Your task to perform on an android device: Clear the cart on walmart. Add "lenovo thinkpad" to the cart on walmart, then select checkout. Image 0: 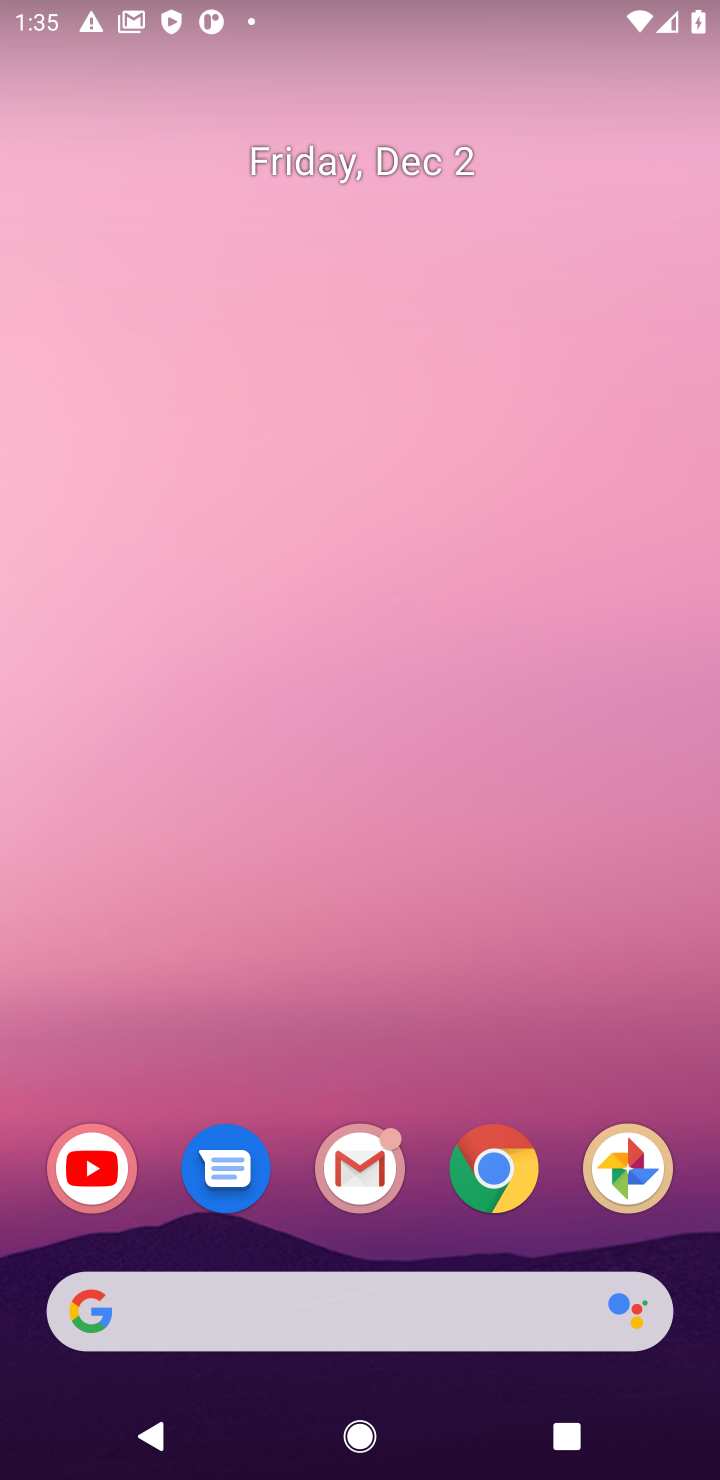
Step 0: click (500, 1163)
Your task to perform on an android device: Clear the cart on walmart. Add "lenovo thinkpad" to the cart on walmart, then select checkout. Image 1: 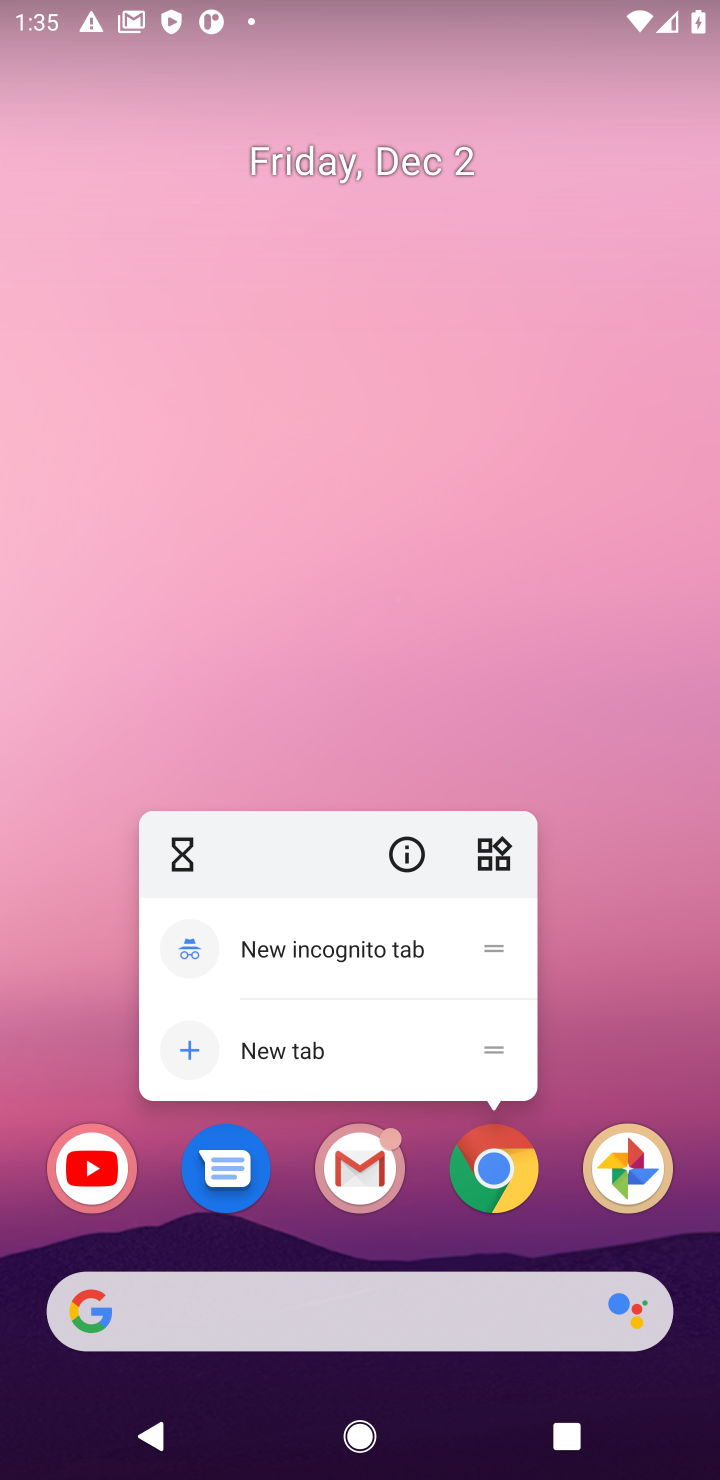
Step 1: click (500, 1163)
Your task to perform on an android device: Clear the cart on walmart. Add "lenovo thinkpad" to the cart on walmart, then select checkout. Image 2: 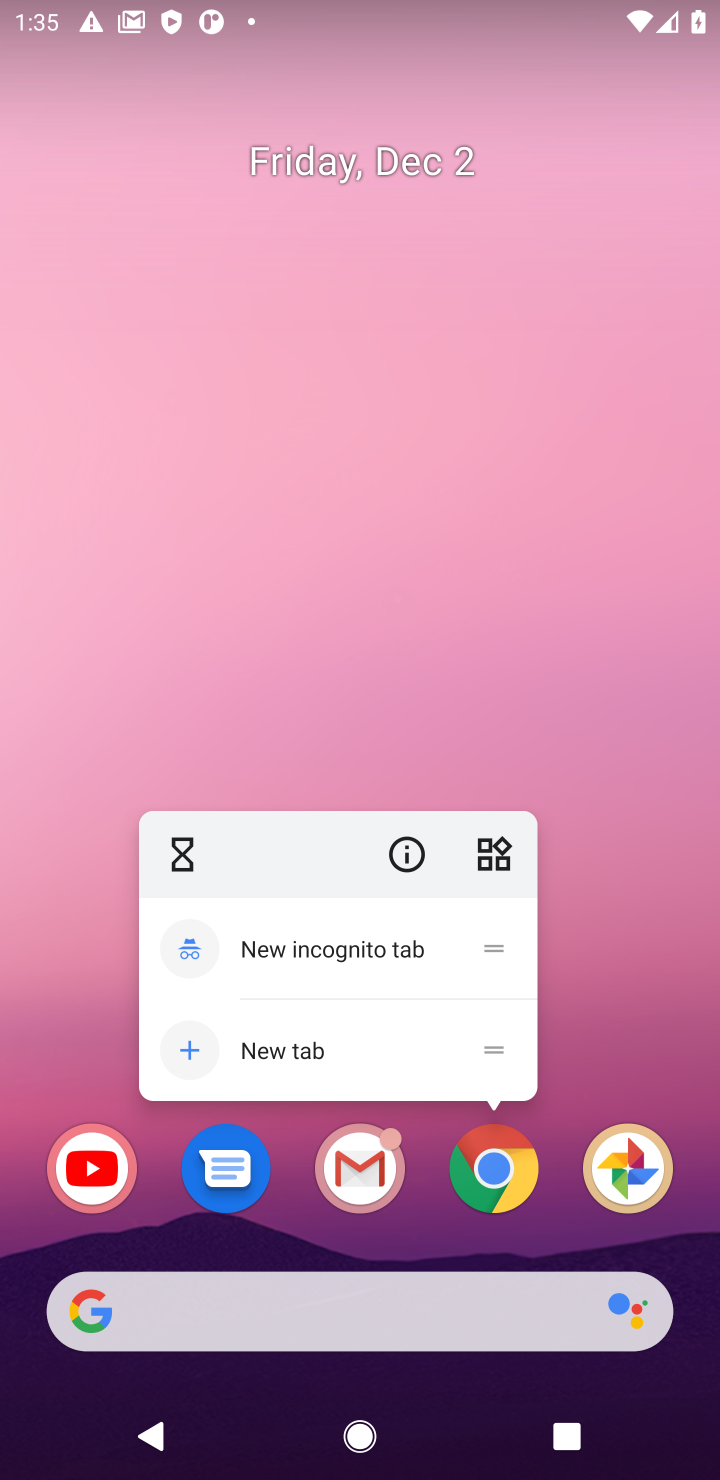
Step 2: click (495, 1168)
Your task to perform on an android device: Clear the cart on walmart. Add "lenovo thinkpad" to the cart on walmart, then select checkout. Image 3: 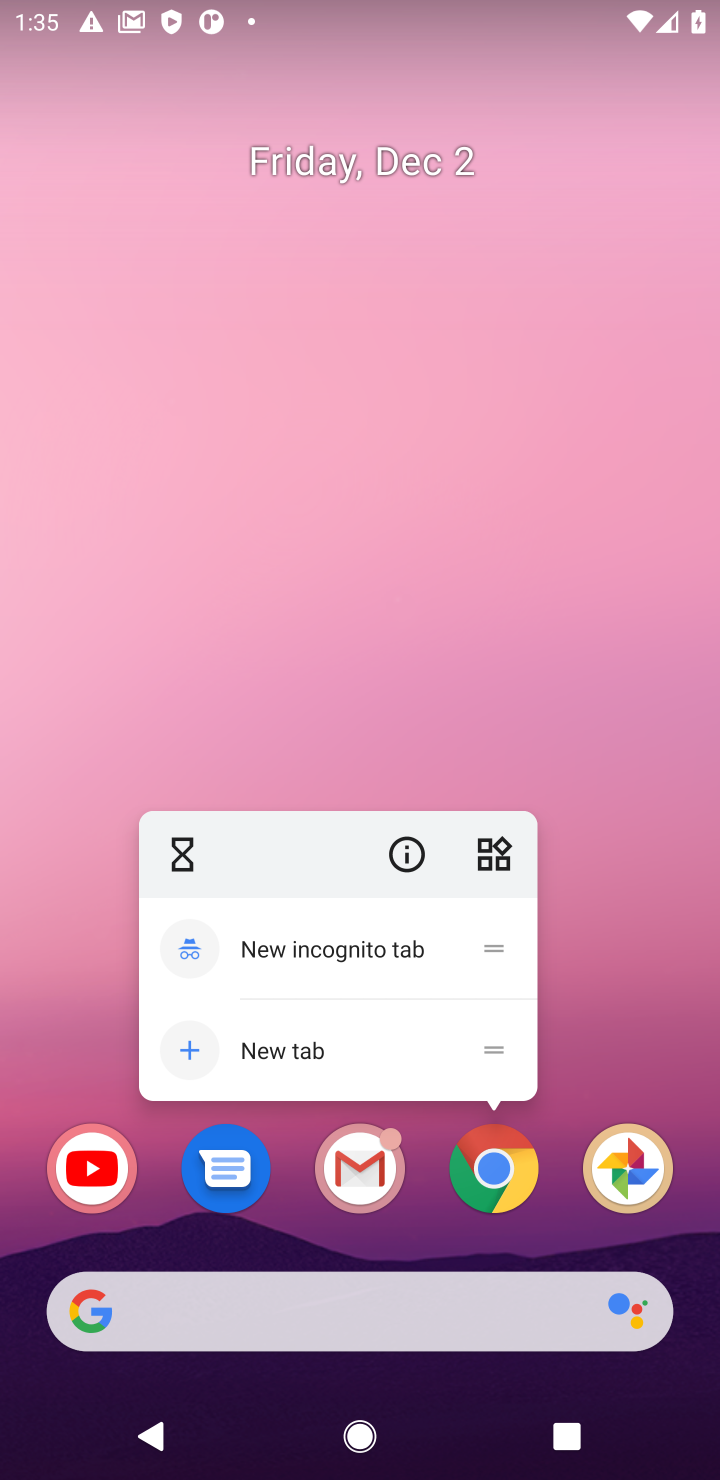
Step 3: click (691, 896)
Your task to perform on an android device: Clear the cart on walmart. Add "lenovo thinkpad" to the cart on walmart, then select checkout. Image 4: 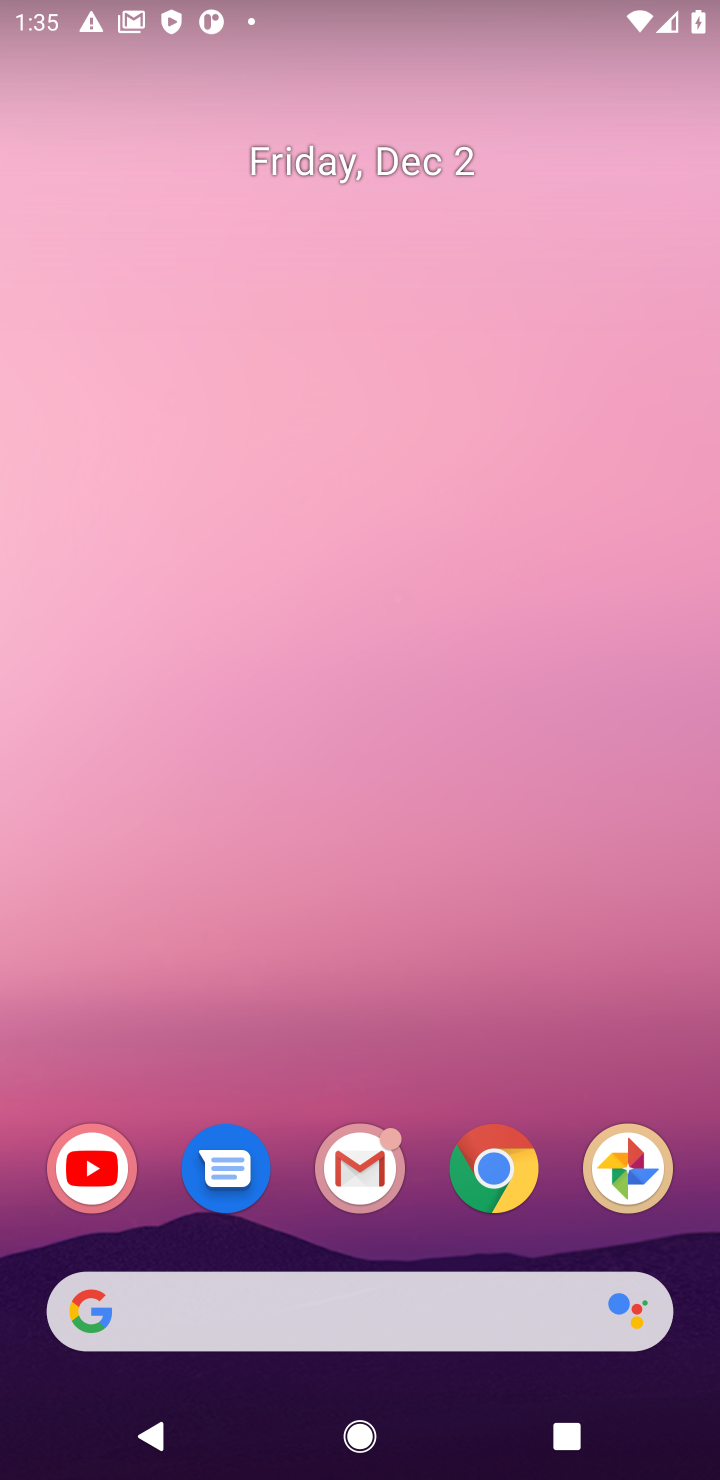
Step 4: click (514, 1170)
Your task to perform on an android device: Clear the cart on walmart. Add "lenovo thinkpad" to the cart on walmart, then select checkout. Image 5: 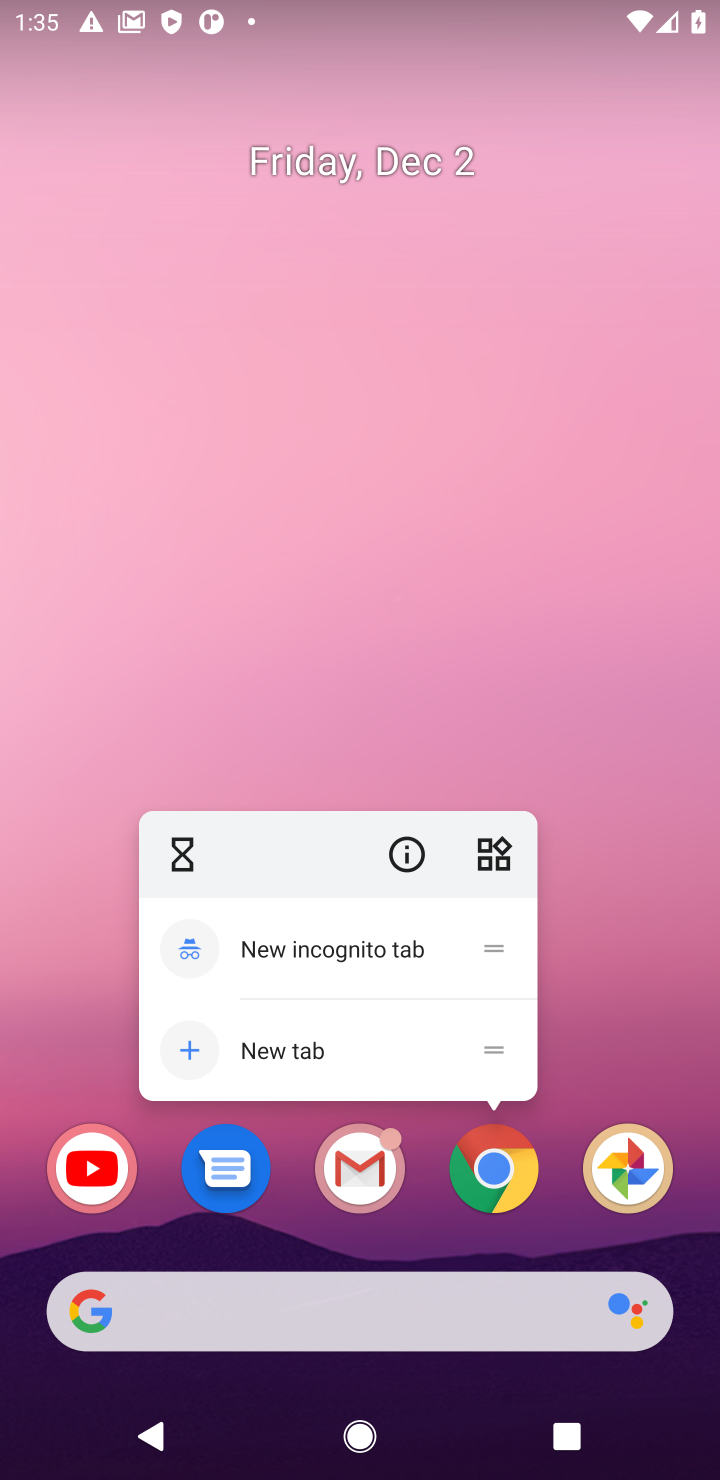
Step 5: click (514, 1170)
Your task to perform on an android device: Clear the cart on walmart. Add "lenovo thinkpad" to the cart on walmart, then select checkout. Image 6: 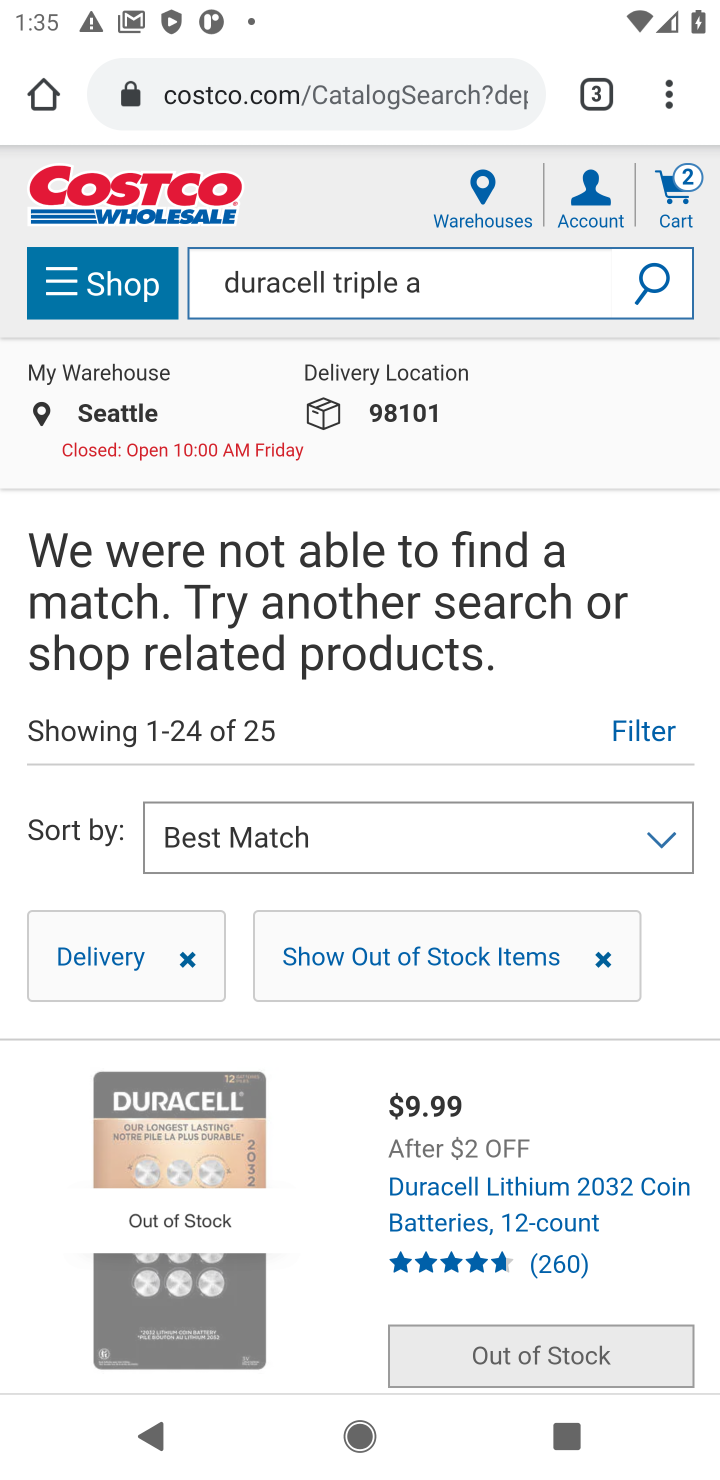
Step 6: click (285, 107)
Your task to perform on an android device: Clear the cart on walmart. Add "lenovo thinkpad" to the cart on walmart, then select checkout. Image 7: 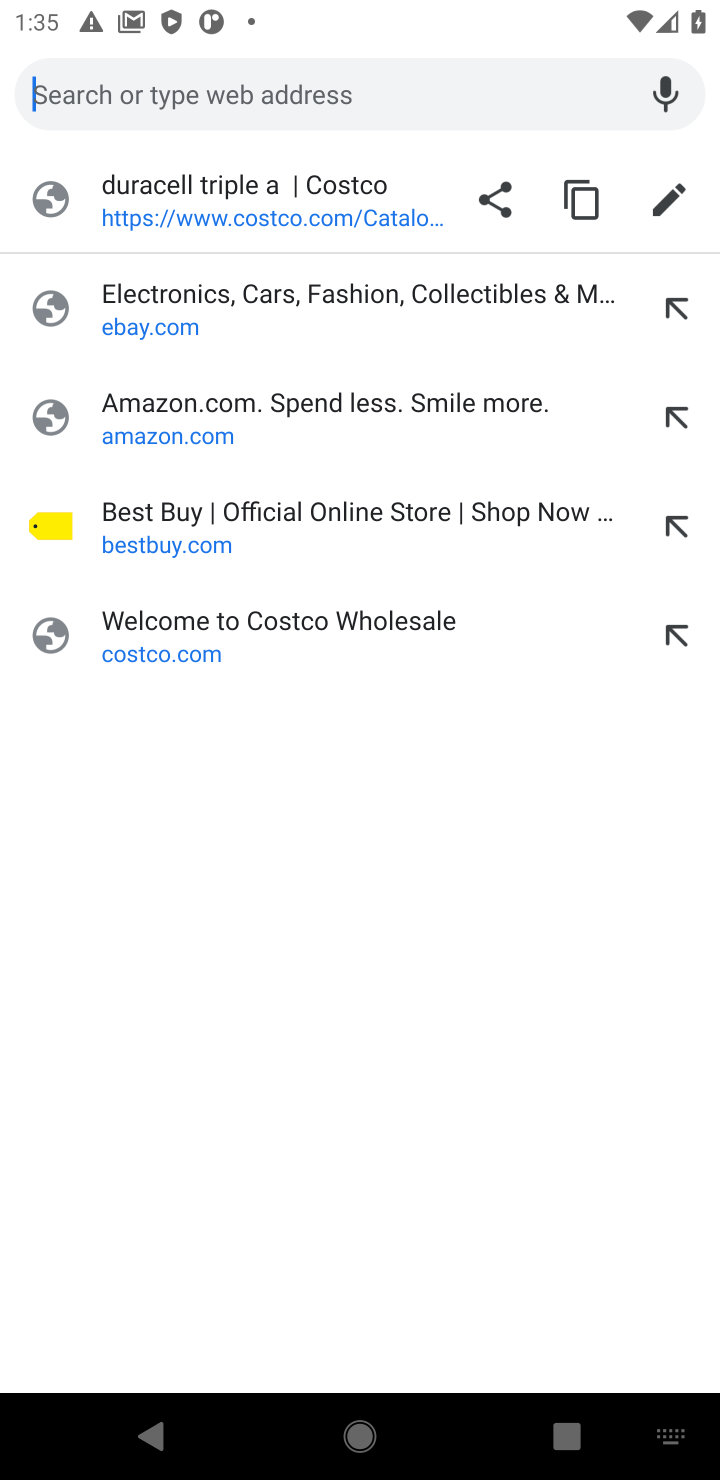
Step 7: type "walmart.com"
Your task to perform on an android device: Clear the cart on walmart. Add "lenovo thinkpad" to the cart on walmart, then select checkout. Image 8: 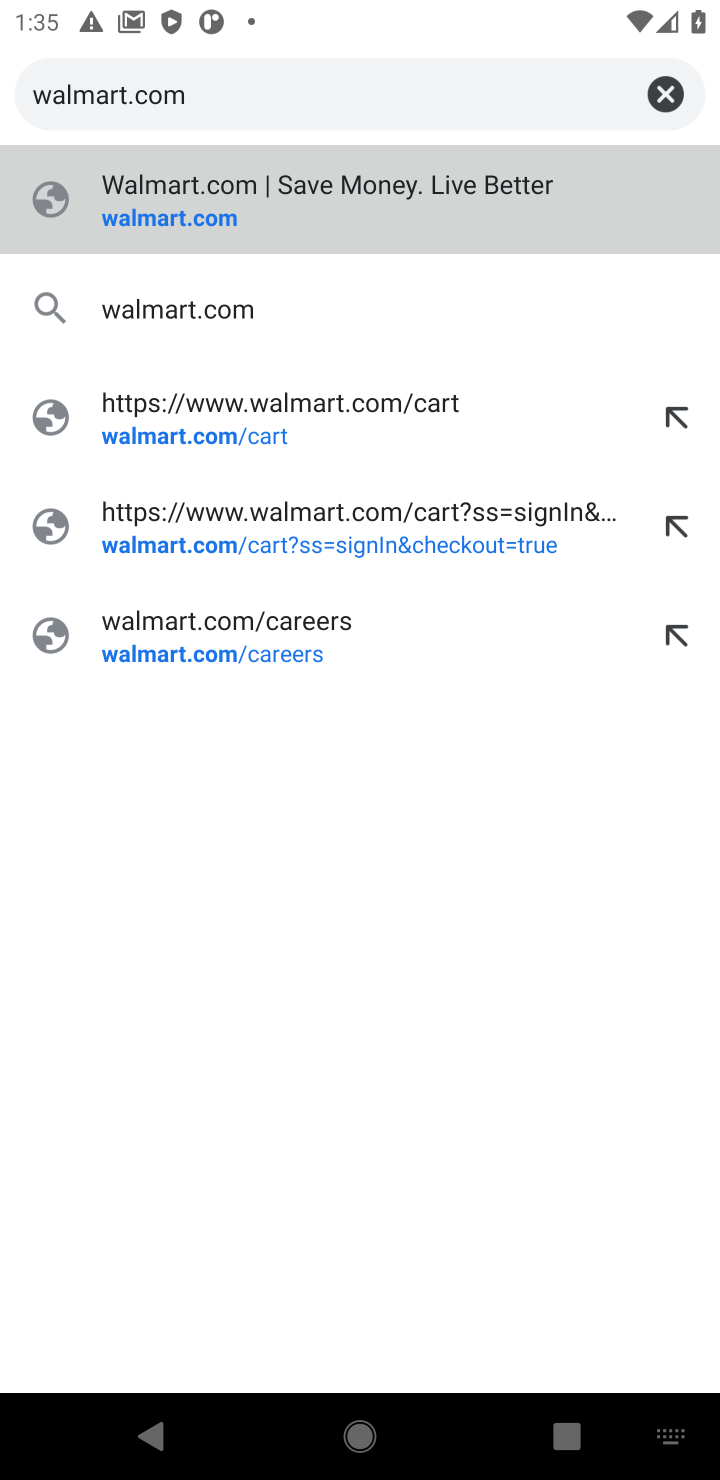
Step 8: click (152, 222)
Your task to perform on an android device: Clear the cart on walmart. Add "lenovo thinkpad" to the cart on walmart, then select checkout. Image 9: 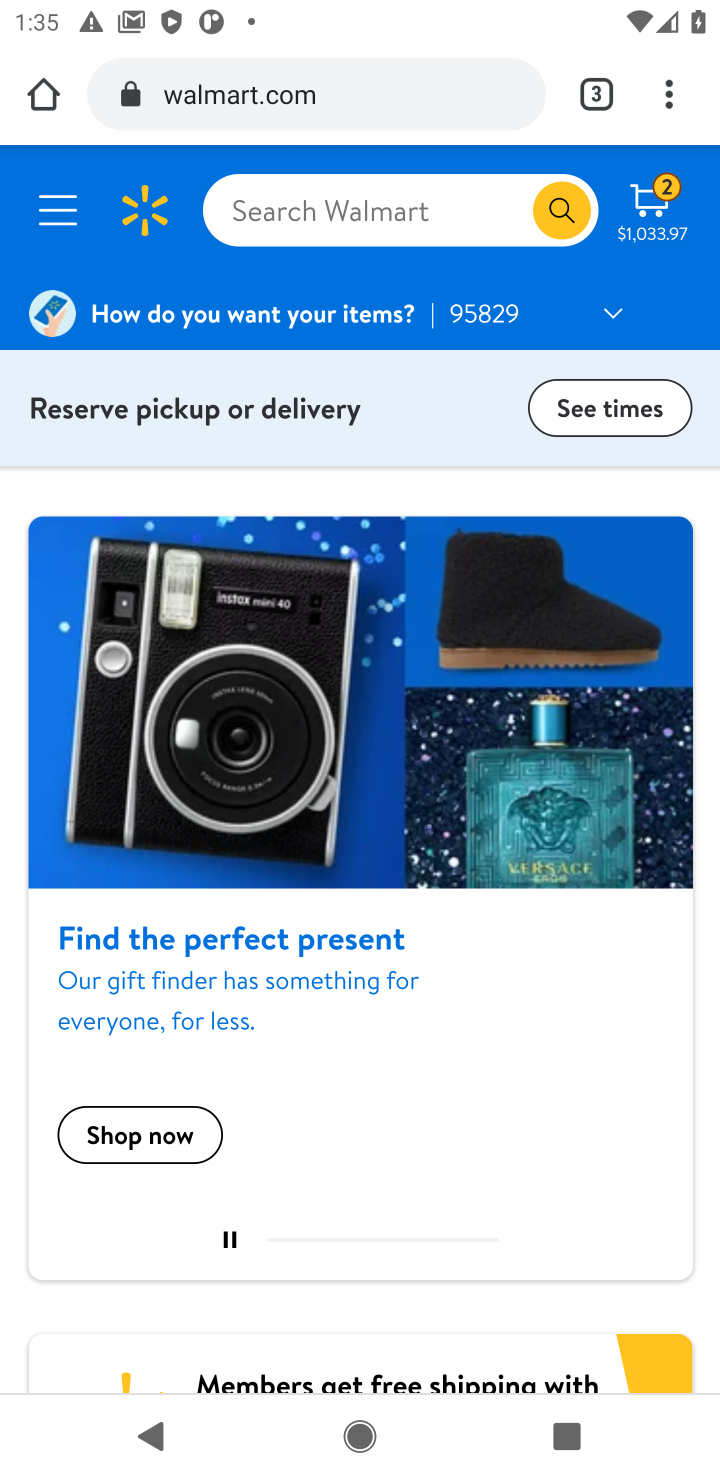
Step 9: click (655, 209)
Your task to perform on an android device: Clear the cart on walmart. Add "lenovo thinkpad" to the cart on walmart, then select checkout. Image 10: 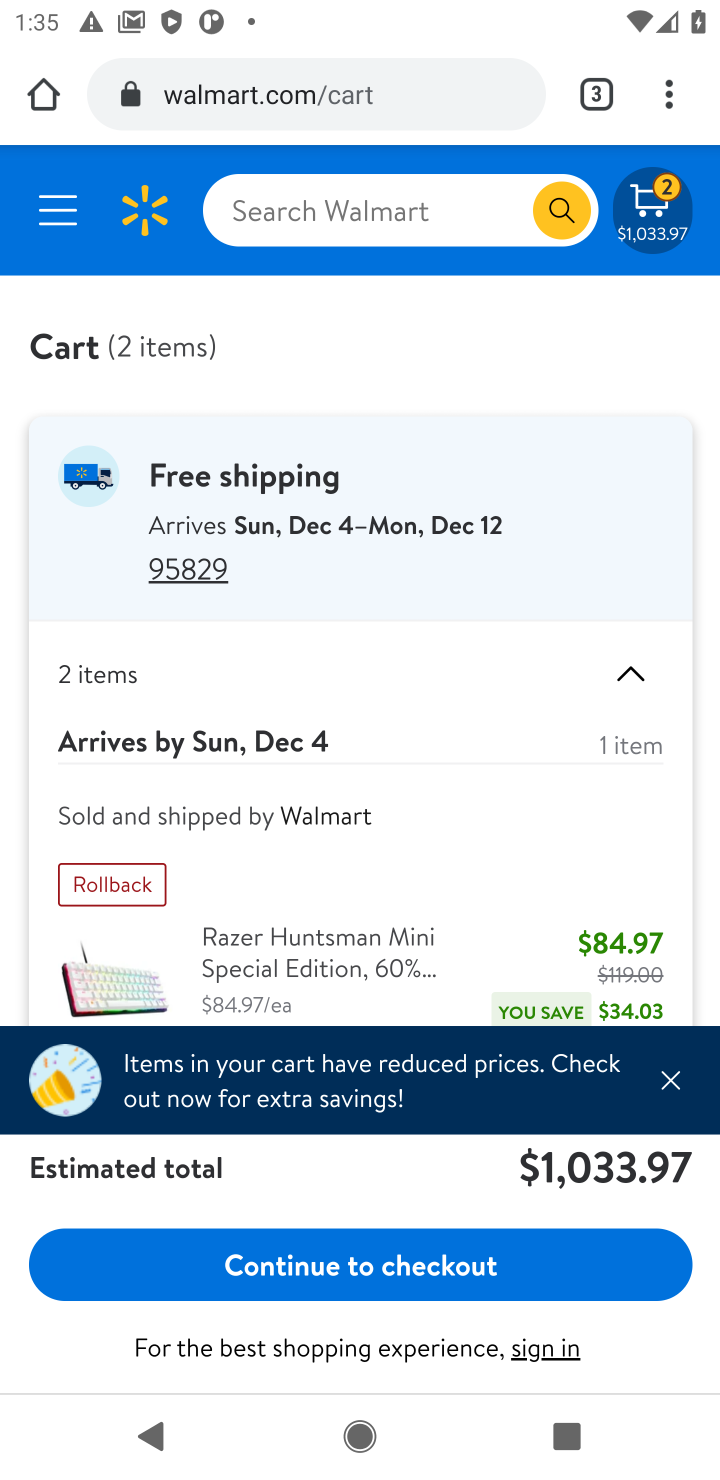
Step 10: drag from (276, 680) to (296, 337)
Your task to perform on an android device: Clear the cart on walmart. Add "lenovo thinkpad" to the cart on walmart, then select checkout. Image 11: 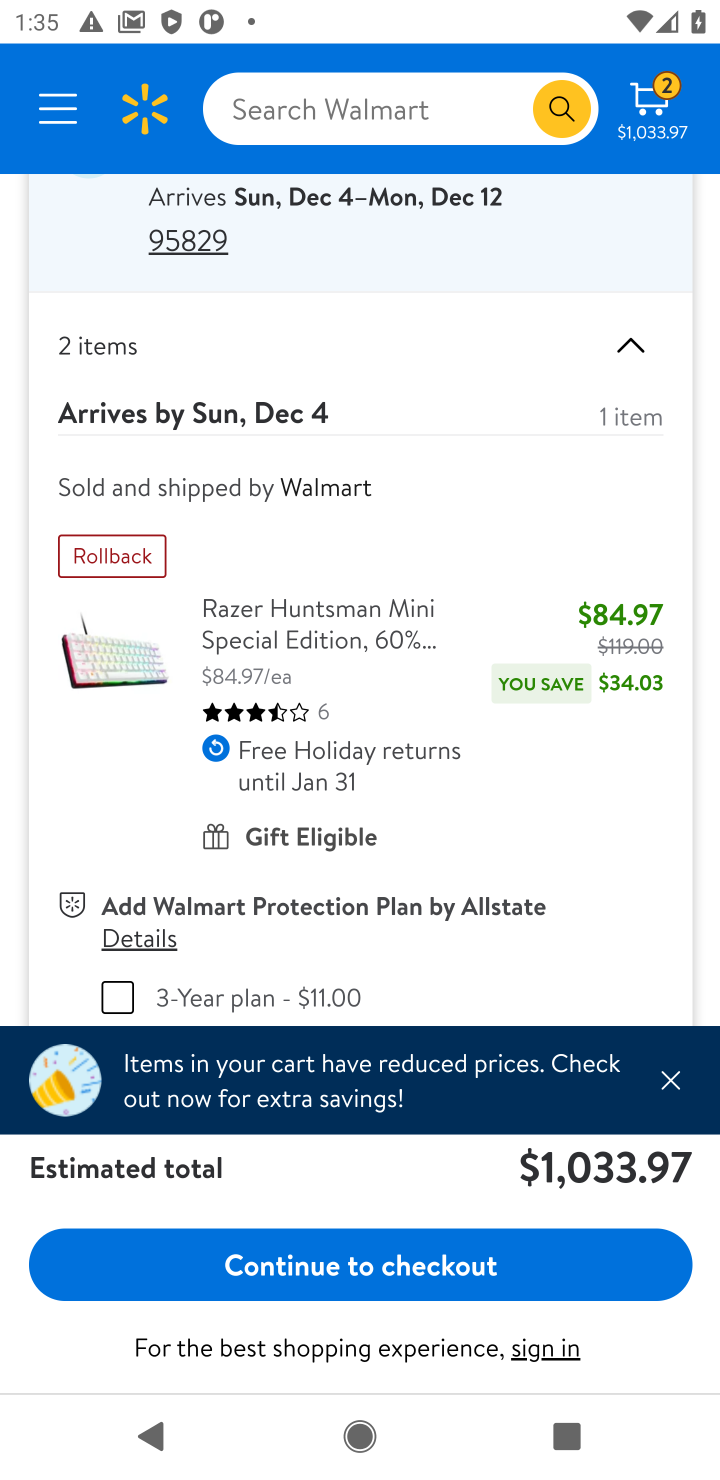
Step 11: drag from (167, 701) to (167, 392)
Your task to perform on an android device: Clear the cart on walmart. Add "lenovo thinkpad" to the cart on walmart, then select checkout. Image 12: 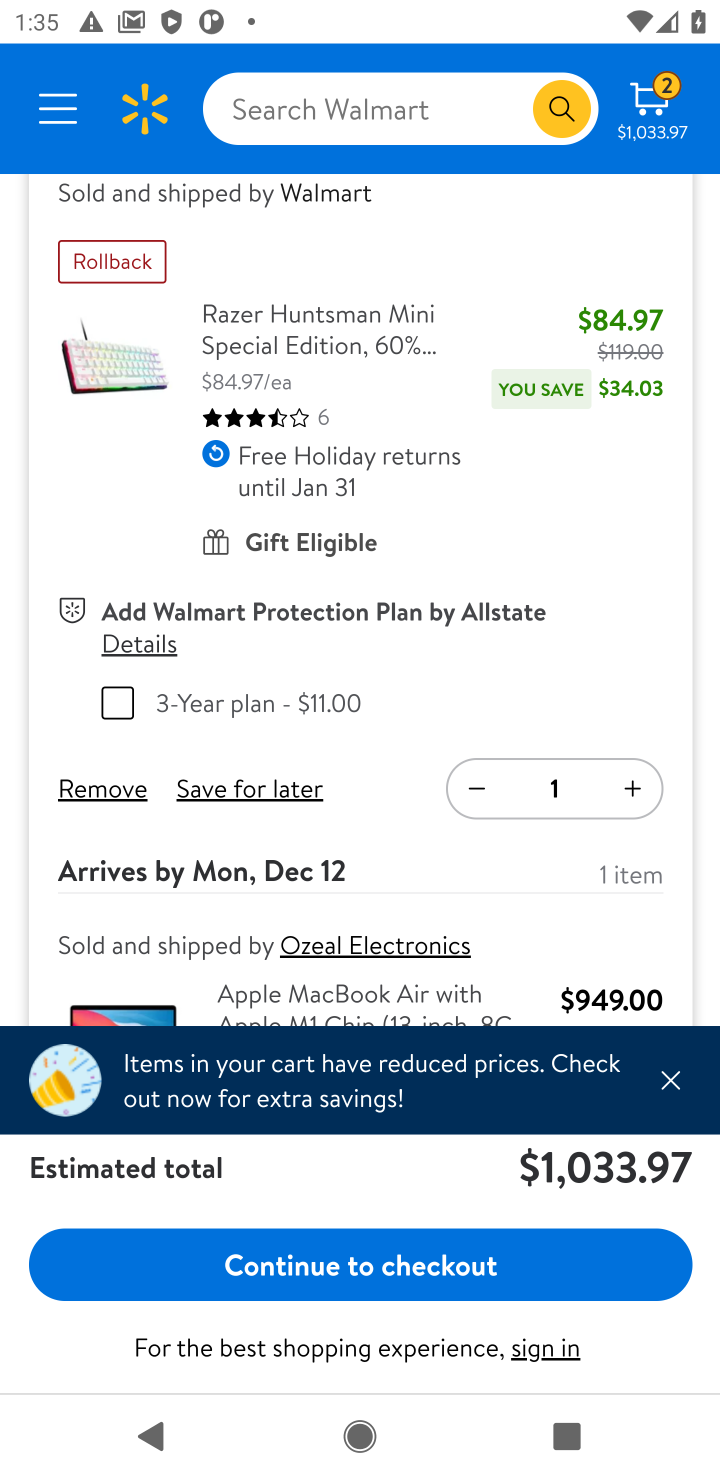
Step 12: click (95, 781)
Your task to perform on an android device: Clear the cart on walmart. Add "lenovo thinkpad" to the cart on walmart, then select checkout. Image 13: 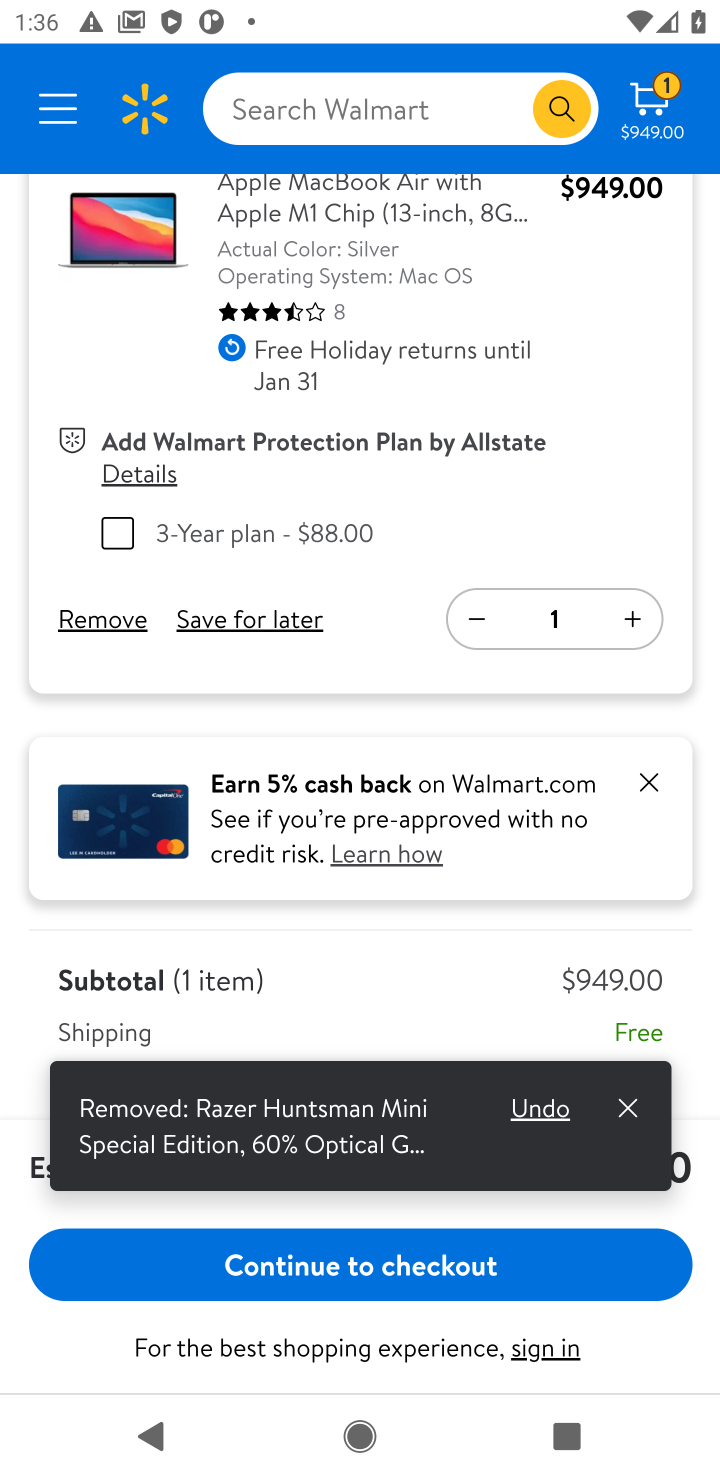
Step 13: click (90, 620)
Your task to perform on an android device: Clear the cart on walmart. Add "lenovo thinkpad" to the cart on walmart, then select checkout. Image 14: 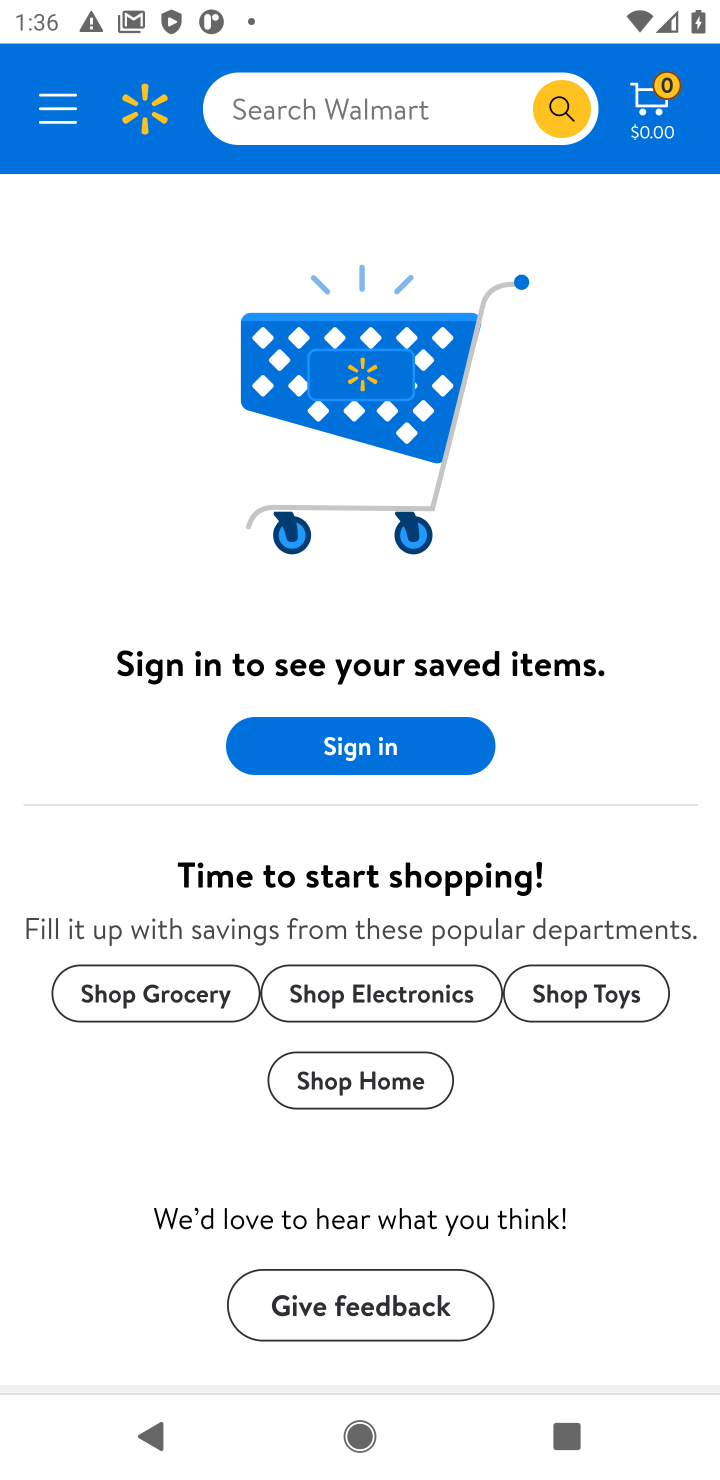
Step 14: click (339, 114)
Your task to perform on an android device: Clear the cart on walmart. Add "lenovo thinkpad" to the cart on walmart, then select checkout. Image 15: 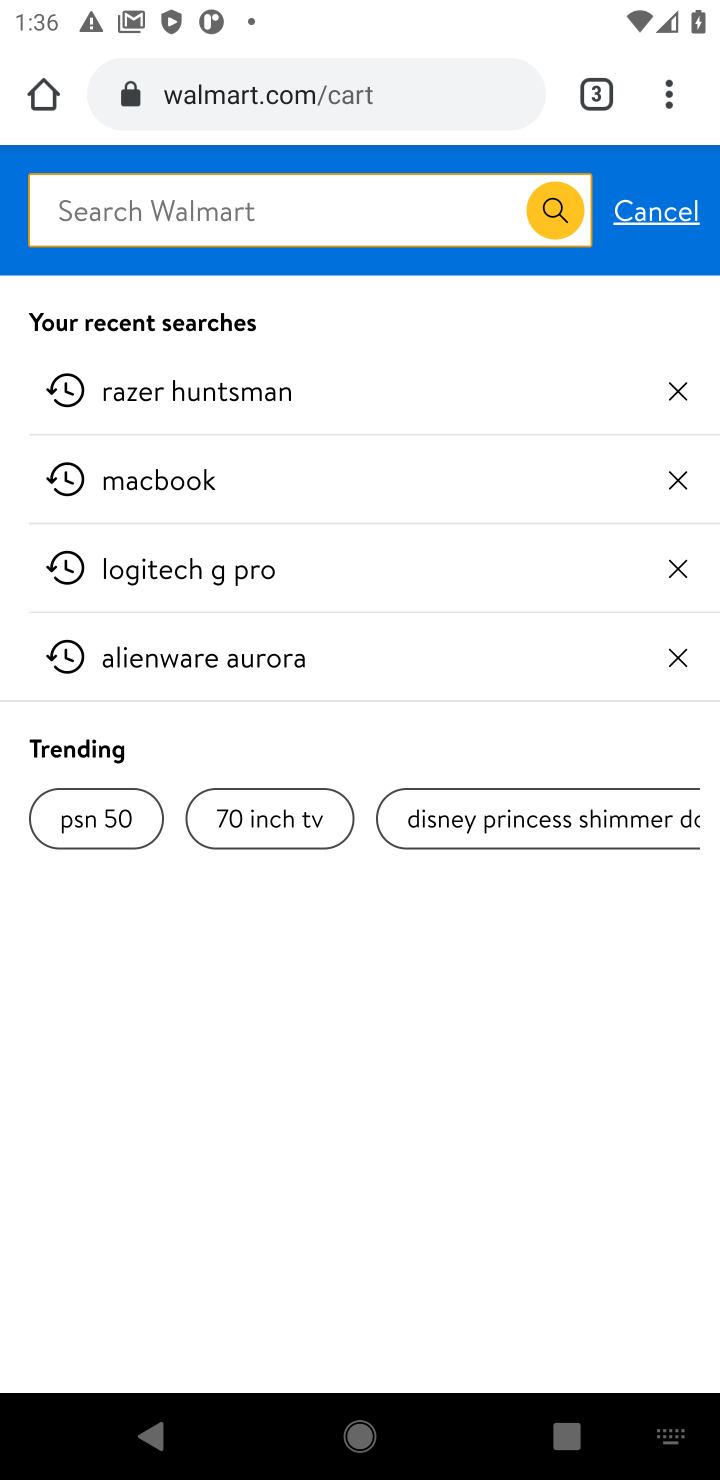
Step 15: type "lenovo thinkpad"
Your task to perform on an android device: Clear the cart on walmart. Add "lenovo thinkpad" to the cart on walmart, then select checkout. Image 16: 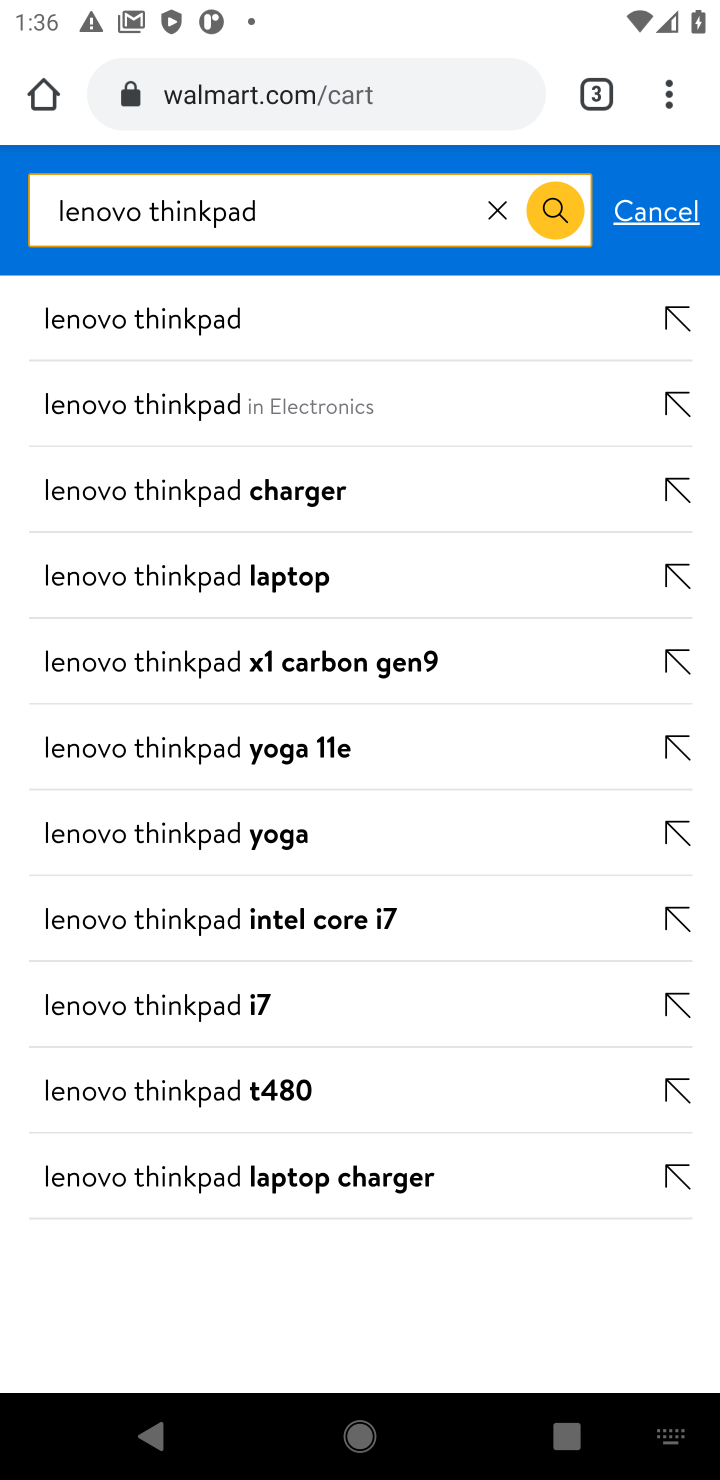
Step 16: click (176, 331)
Your task to perform on an android device: Clear the cart on walmart. Add "lenovo thinkpad" to the cart on walmart, then select checkout. Image 17: 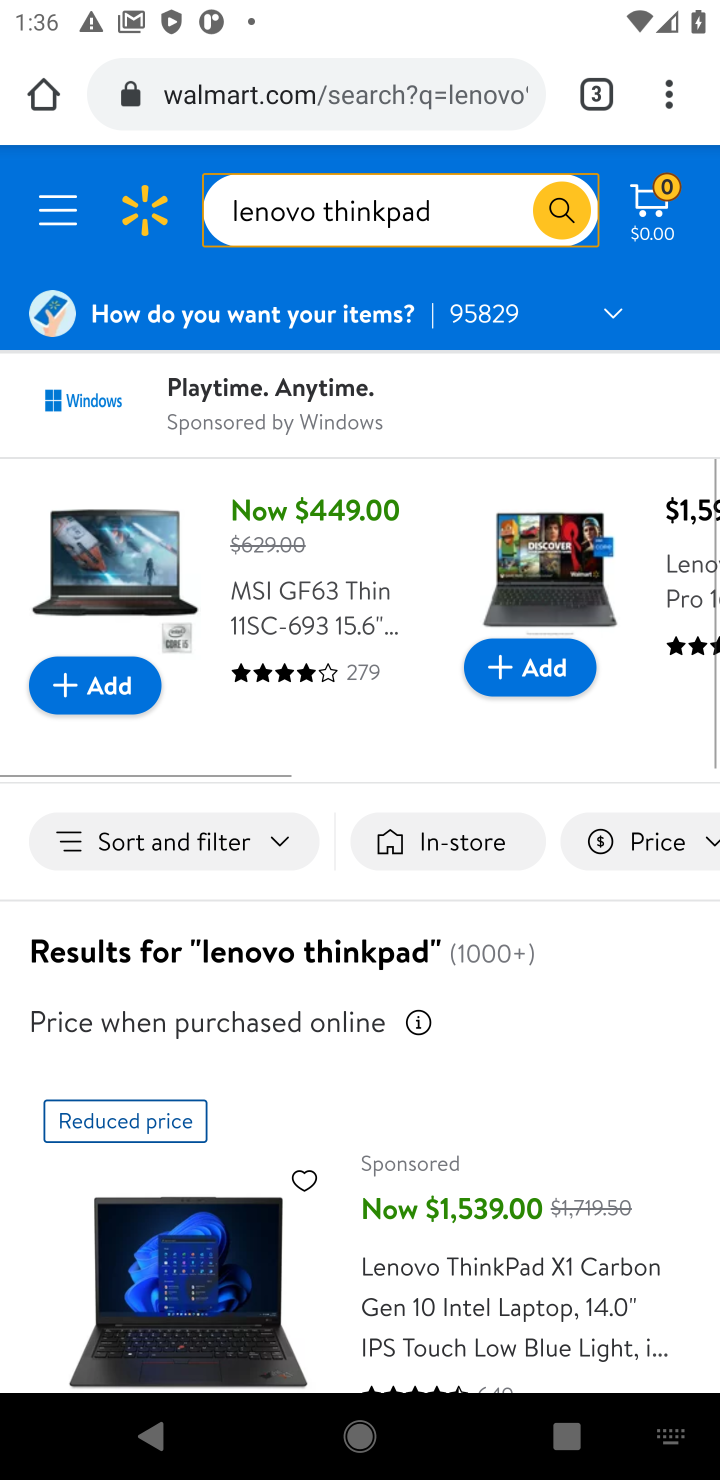
Step 17: drag from (362, 994) to (345, 491)
Your task to perform on an android device: Clear the cart on walmart. Add "lenovo thinkpad" to the cart on walmart, then select checkout. Image 18: 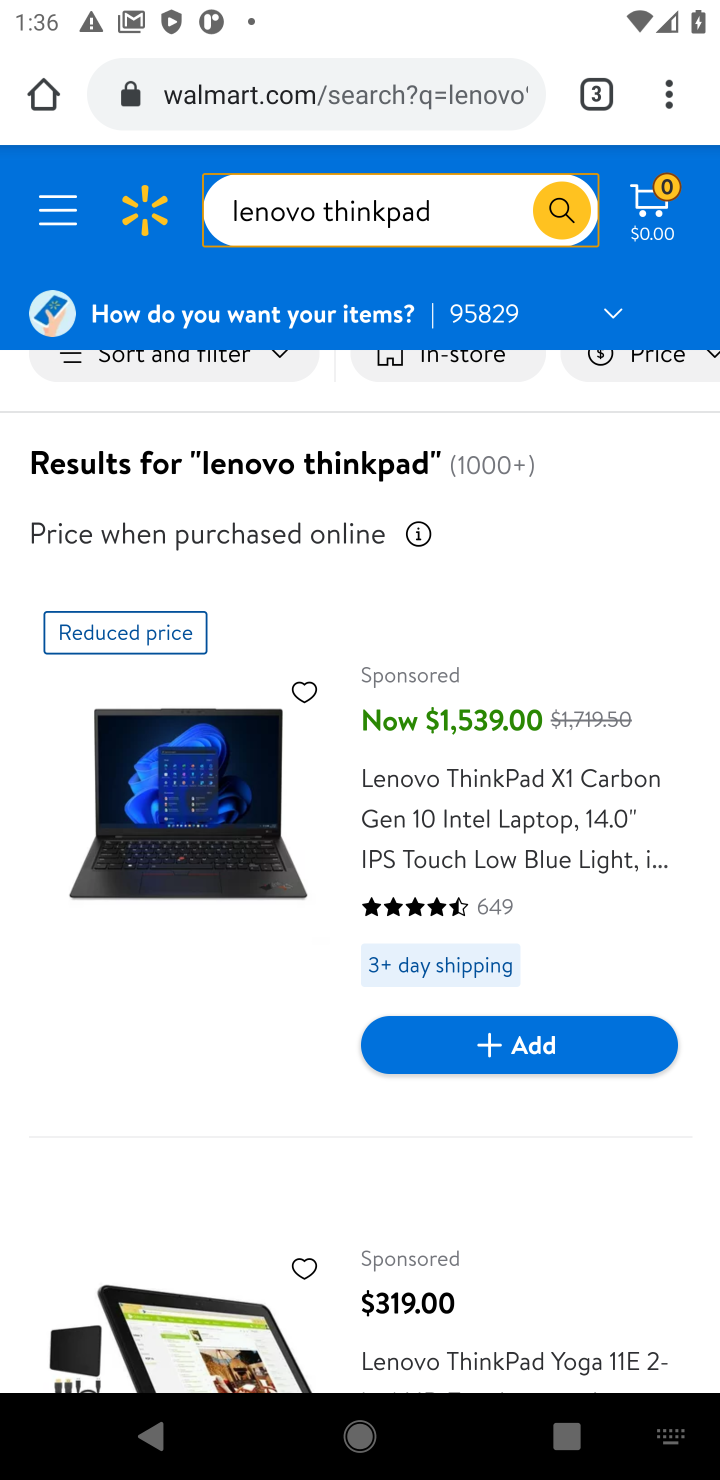
Step 18: click (514, 1048)
Your task to perform on an android device: Clear the cart on walmart. Add "lenovo thinkpad" to the cart on walmart, then select checkout. Image 19: 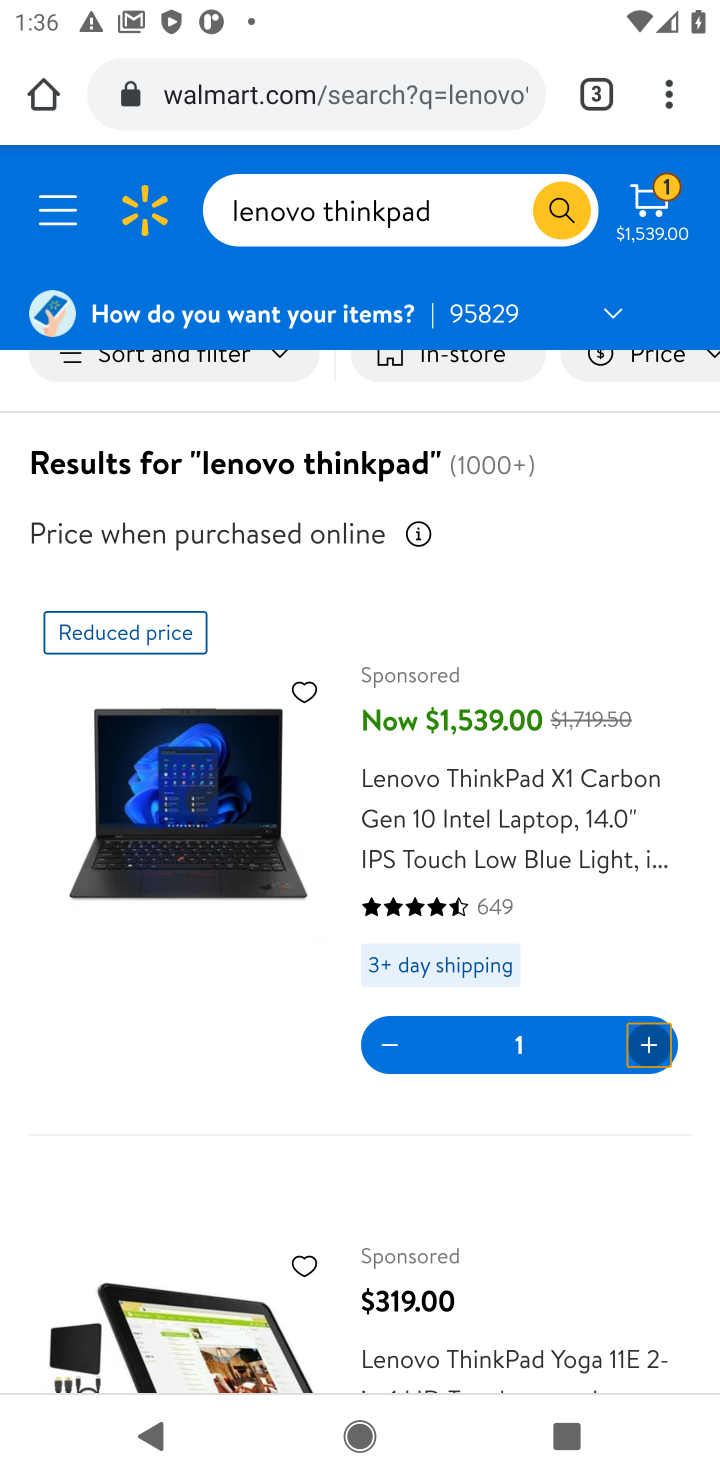
Step 19: click (652, 224)
Your task to perform on an android device: Clear the cart on walmart. Add "lenovo thinkpad" to the cart on walmart, then select checkout. Image 20: 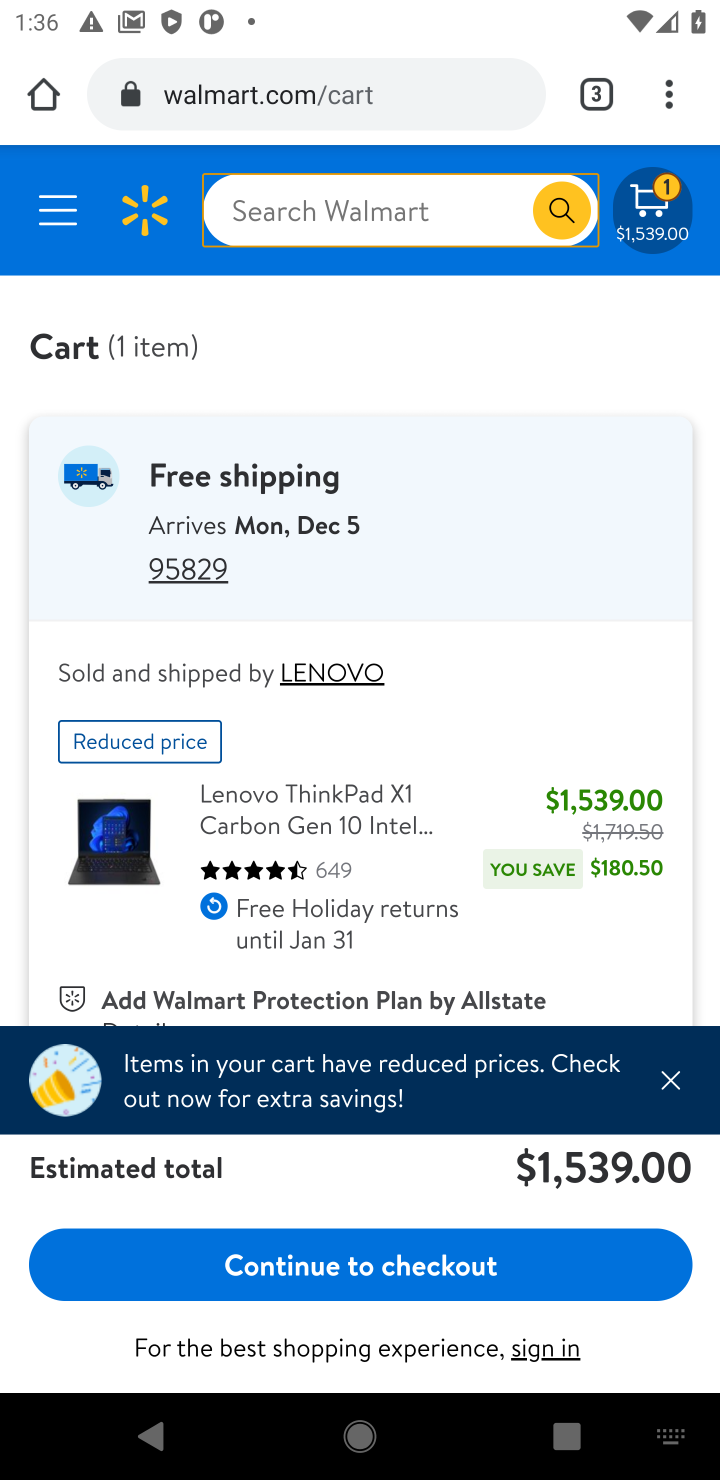
Step 20: click (291, 1266)
Your task to perform on an android device: Clear the cart on walmart. Add "lenovo thinkpad" to the cart on walmart, then select checkout. Image 21: 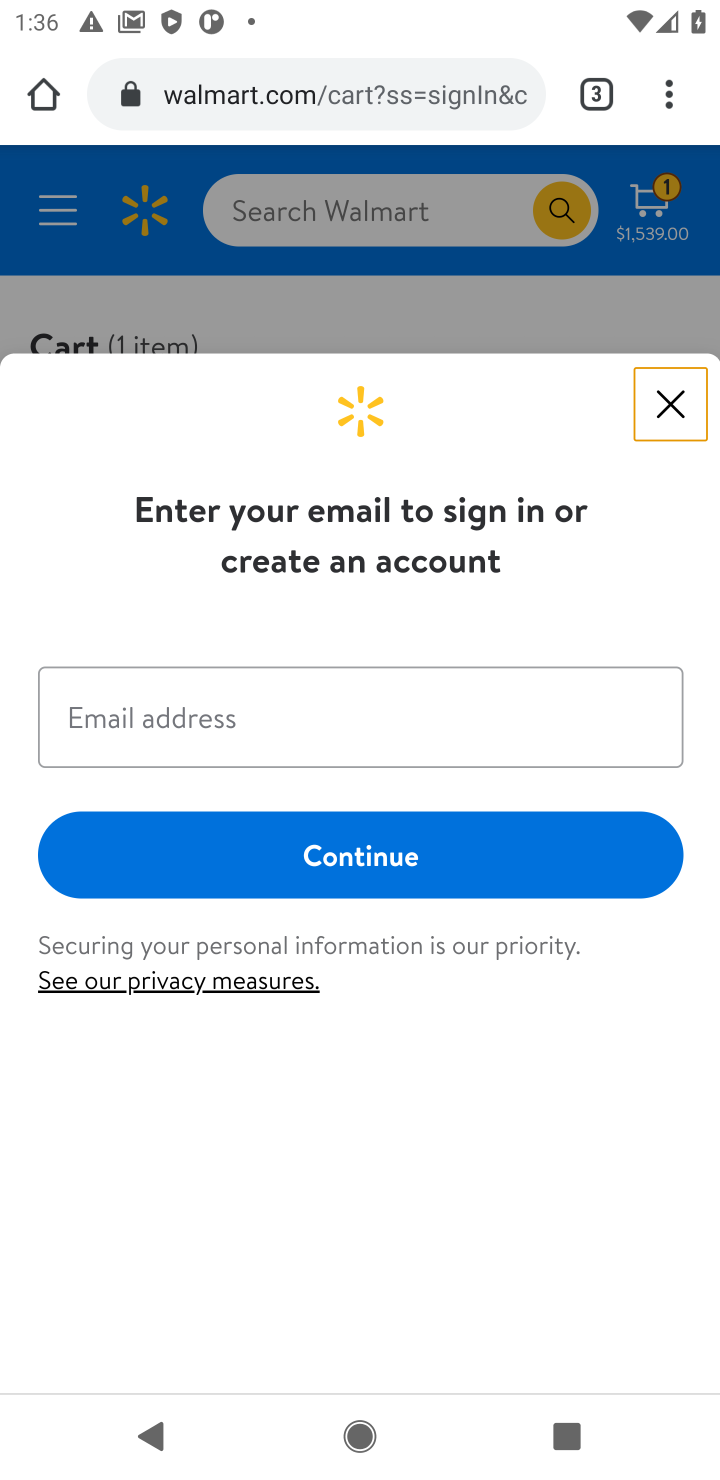
Step 21: task complete